Your task to perform on an android device: Open accessibility settings Image 0: 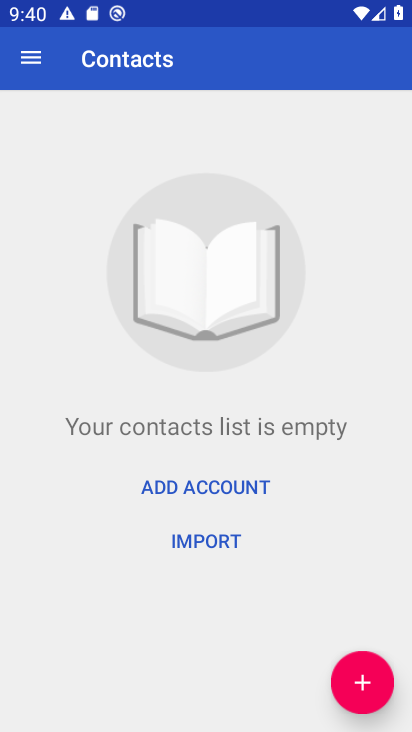
Step 0: press home button
Your task to perform on an android device: Open accessibility settings Image 1: 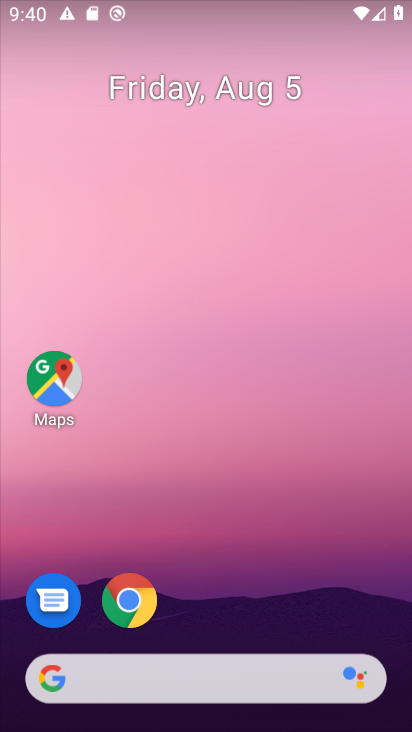
Step 1: click (399, 602)
Your task to perform on an android device: Open accessibility settings Image 2: 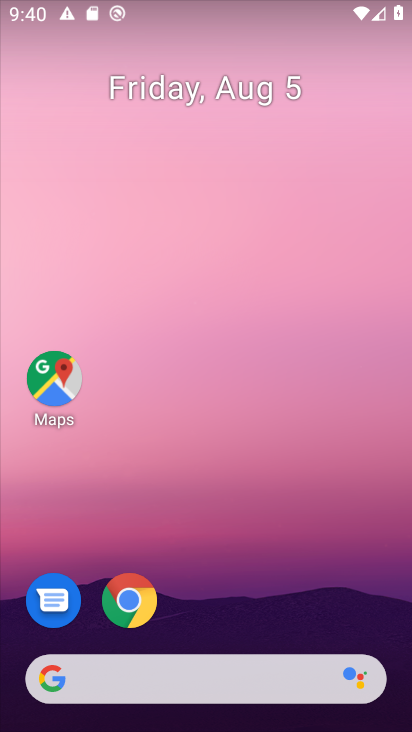
Step 2: click (395, 601)
Your task to perform on an android device: Open accessibility settings Image 3: 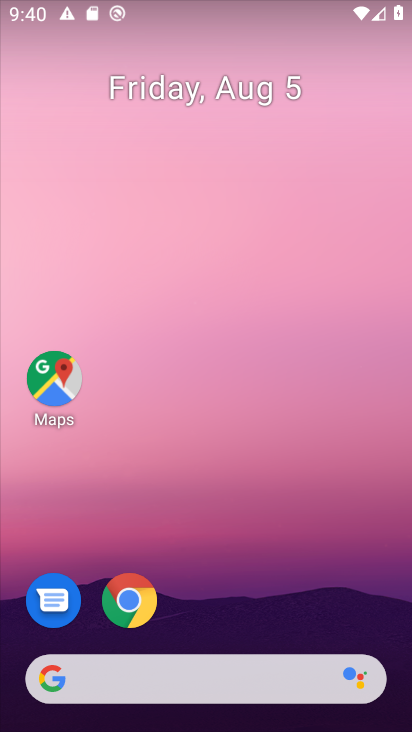
Step 3: click (395, 601)
Your task to perform on an android device: Open accessibility settings Image 4: 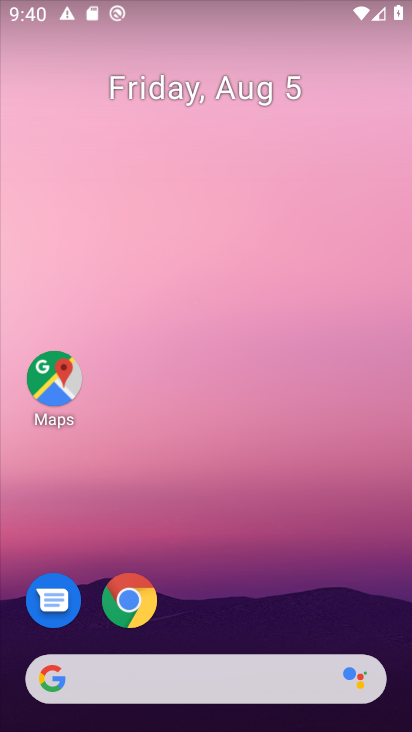
Step 4: drag from (395, 601) to (275, 167)
Your task to perform on an android device: Open accessibility settings Image 5: 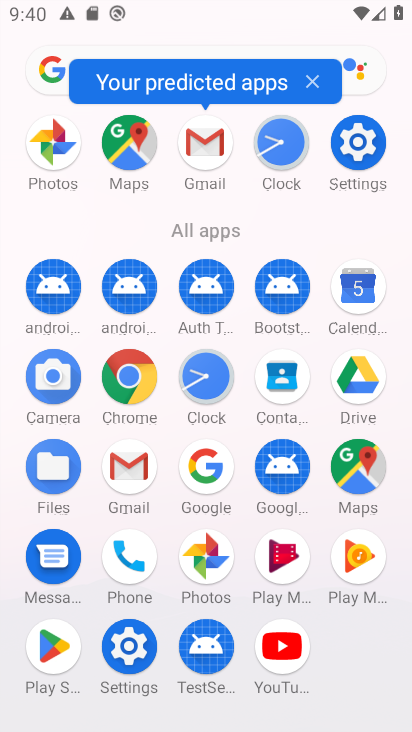
Step 5: click (353, 152)
Your task to perform on an android device: Open accessibility settings Image 6: 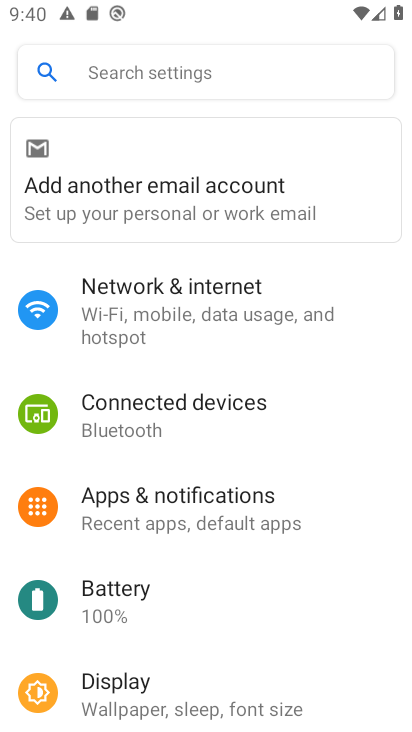
Step 6: drag from (325, 505) to (325, 146)
Your task to perform on an android device: Open accessibility settings Image 7: 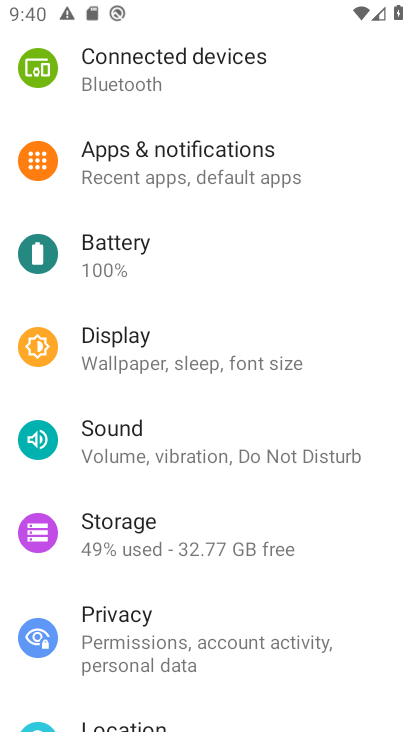
Step 7: drag from (297, 463) to (250, 192)
Your task to perform on an android device: Open accessibility settings Image 8: 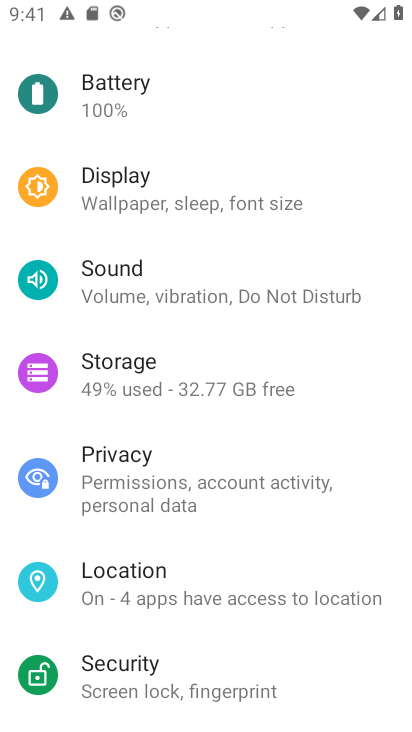
Step 8: drag from (307, 559) to (217, 165)
Your task to perform on an android device: Open accessibility settings Image 9: 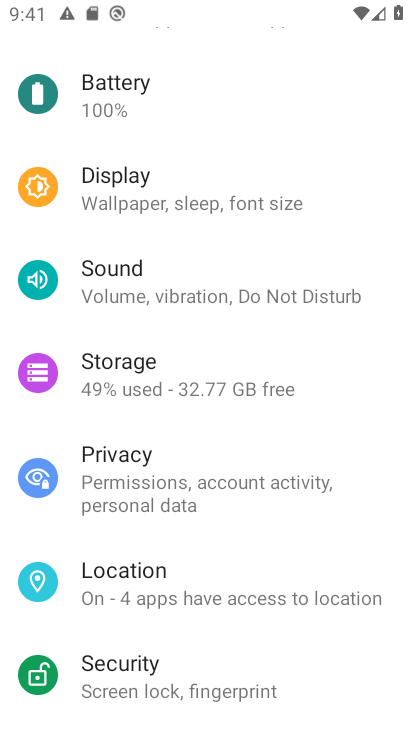
Step 9: drag from (409, 449) to (236, 56)
Your task to perform on an android device: Open accessibility settings Image 10: 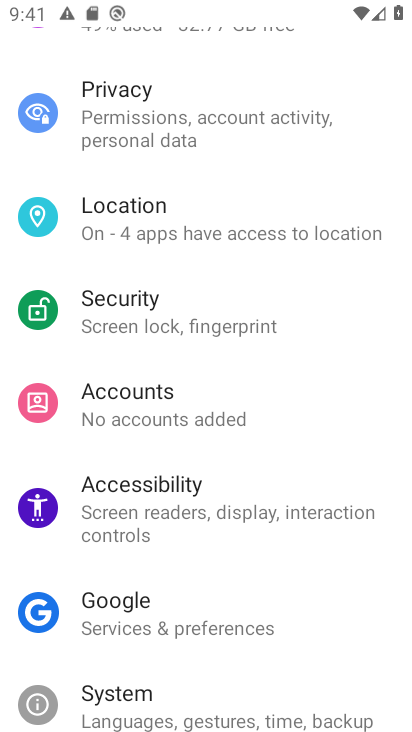
Step 10: click (293, 512)
Your task to perform on an android device: Open accessibility settings Image 11: 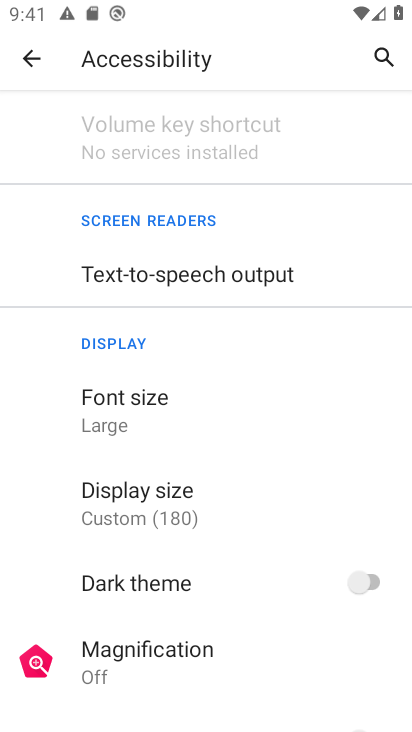
Step 11: task complete